Your task to perform on an android device: turn off notifications in google photos Image 0: 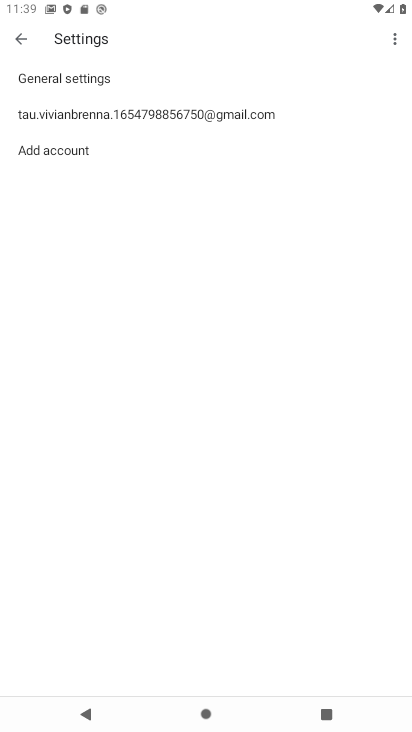
Step 0: press home button
Your task to perform on an android device: turn off notifications in google photos Image 1: 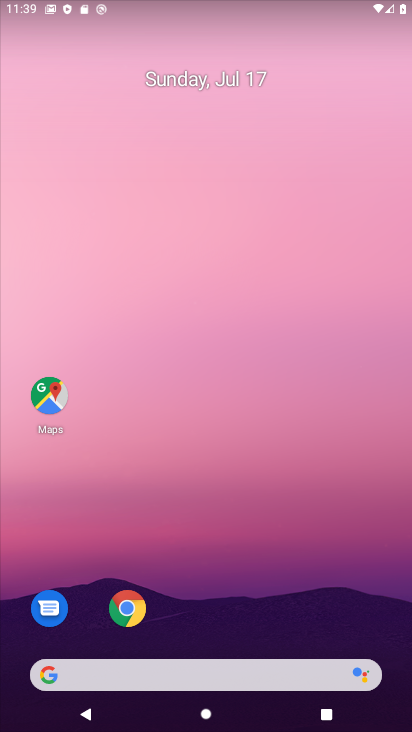
Step 1: drag from (178, 654) to (208, 117)
Your task to perform on an android device: turn off notifications in google photos Image 2: 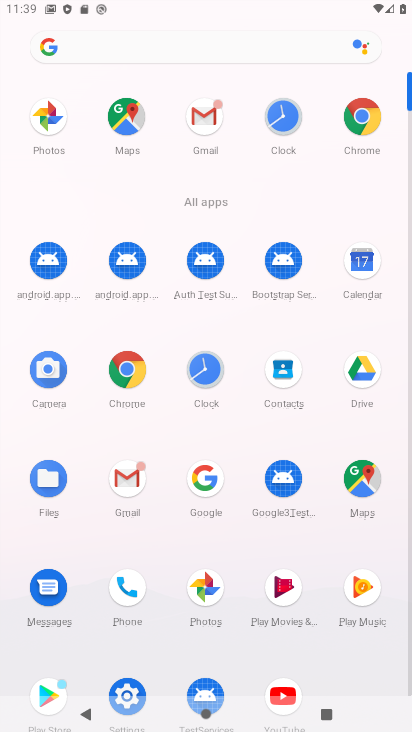
Step 2: click (222, 574)
Your task to perform on an android device: turn off notifications in google photos Image 3: 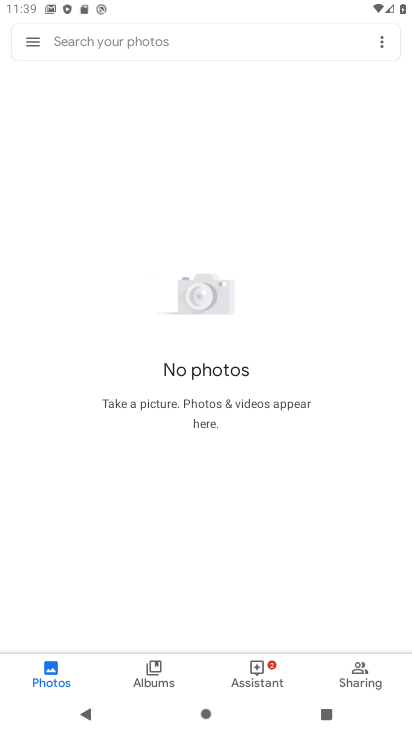
Step 3: click (39, 46)
Your task to perform on an android device: turn off notifications in google photos Image 4: 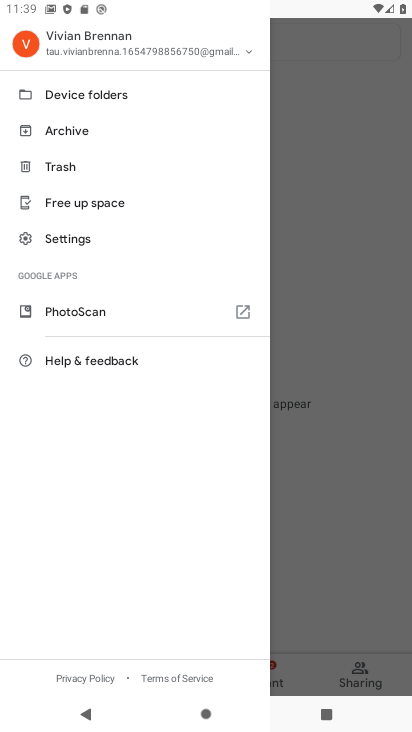
Step 4: click (109, 238)
Your task to perform on an android device: turn off notifications in google photos Image 5: 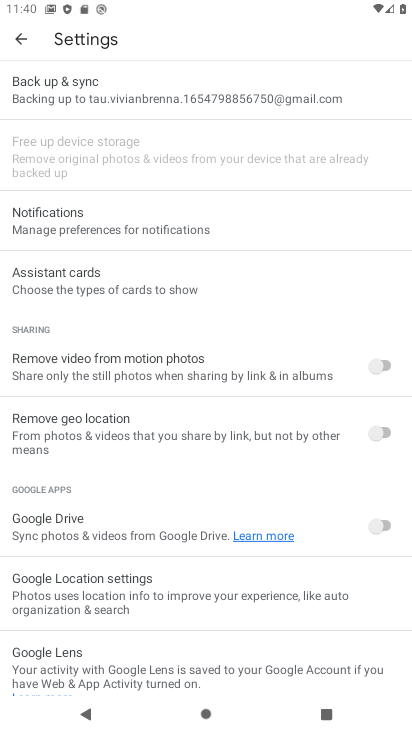
Step 5: click (106, 220)
Your task to perform on an android device: turn off notifications in google photos Image 6: 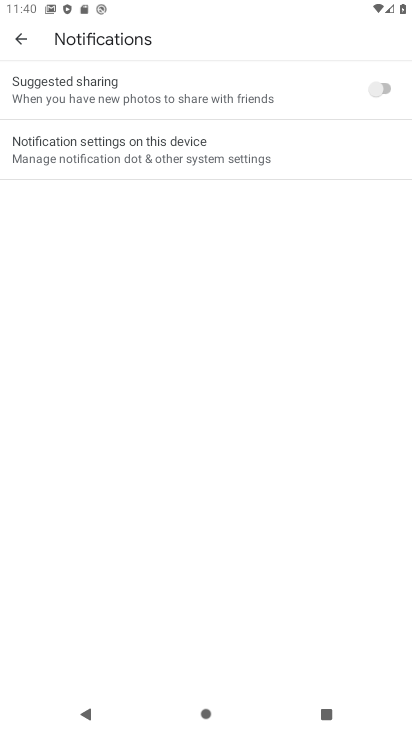
Step 6: click (237, 154)
Your task to perform on an android device: turn off notifications in google photos Image 7: 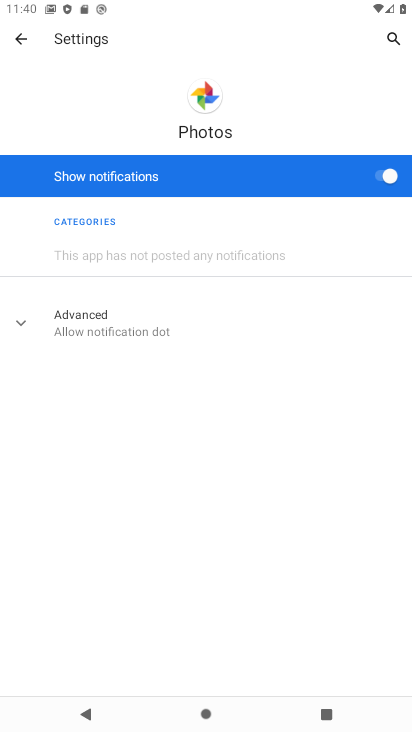
Step 7: click (377, 169)
Your task to perform on an android device: turn off notifications in google photos Image 8: 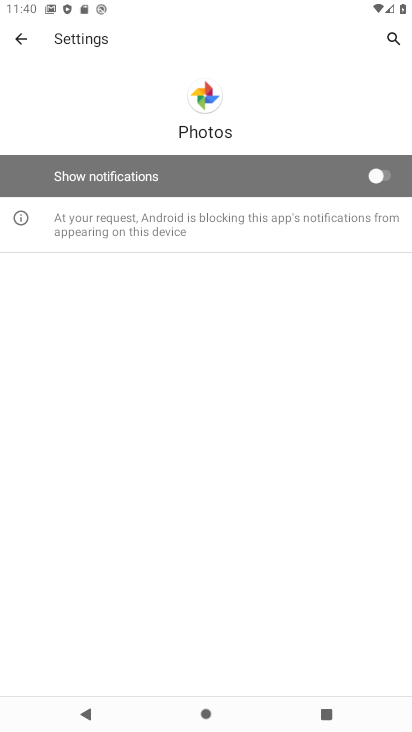
Step 8: task complete